Your task to perform on an android device: open app "Google Maps" (install if not already installed) Image 0: 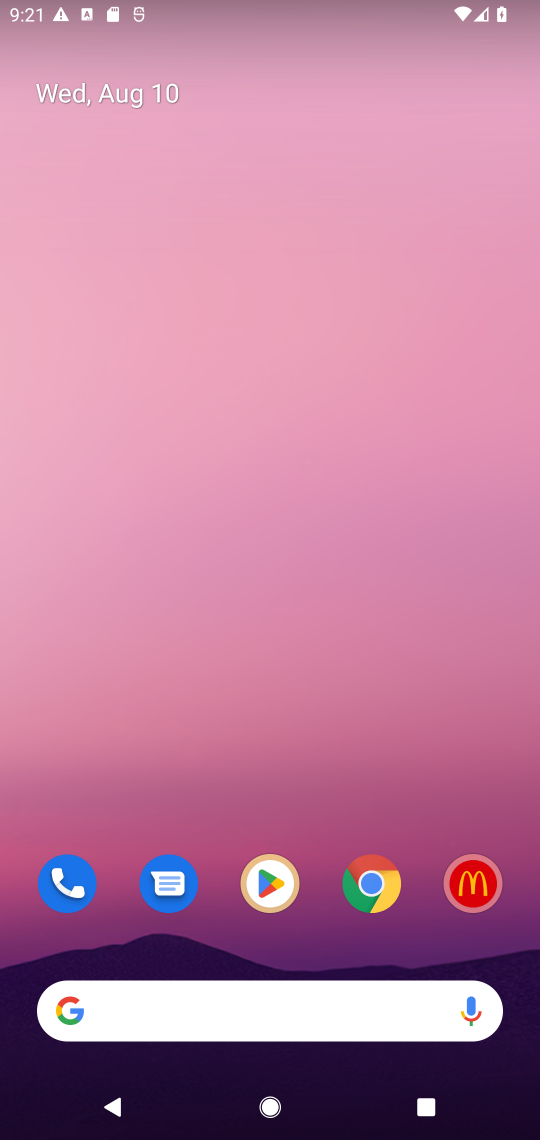
Step 0: drag from (346, 747) to (349, 299)
Your task to perform on an android device: open app "Google Maps" (install if not already installed) Image 1: 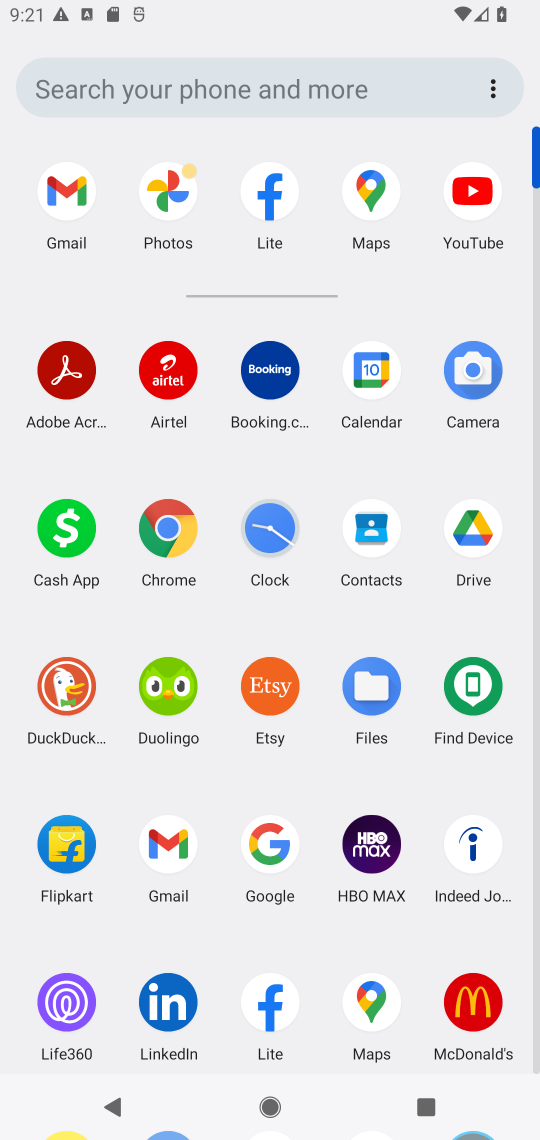
Step 1: click (368, 997)
Your task to perform on an android device: open app "Google Maps" (install if not already installed) Image 2: 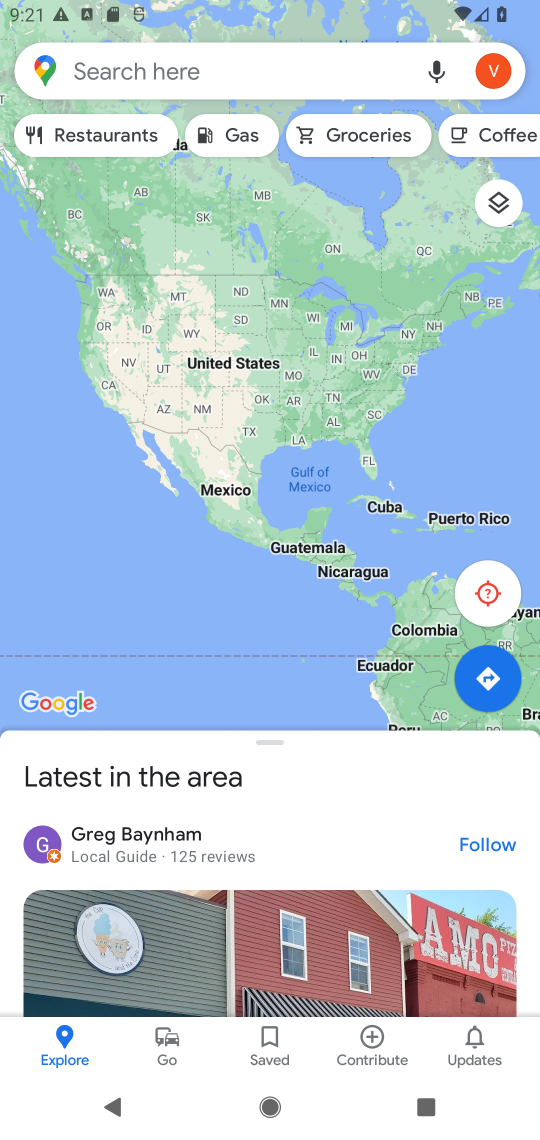
Step 2: task complete